Your task to perform on an android device: Open my contact list Image 0: 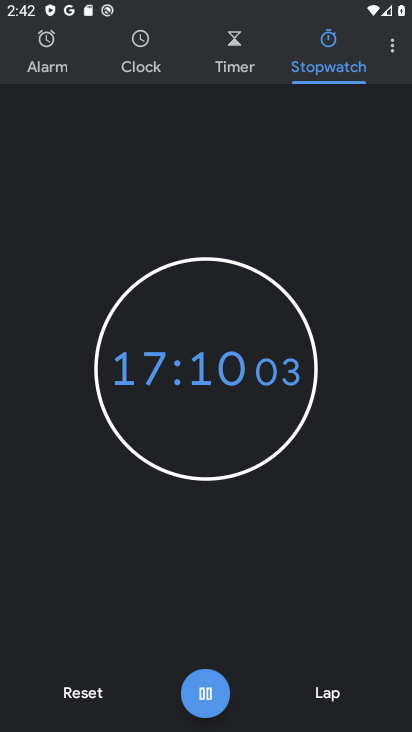
Step 0: press home button
Your task to perform on an android device: Open my contact list Image 1: 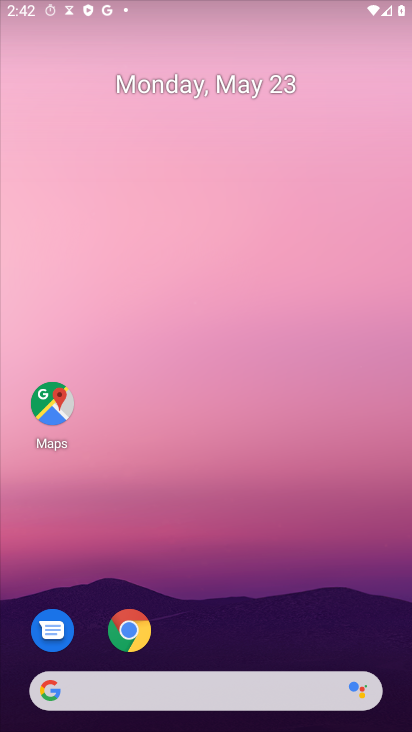
Step 1: drag from (306, 567) to (267, 5)
Your task to perform on an android device: Open my contact list Image 2: 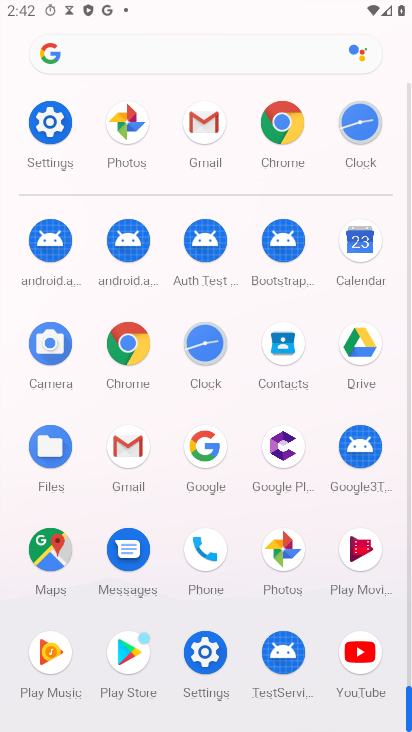
Step 2: click (191, 544)
Your task to perform on an android device: Open my contact list Image 3: 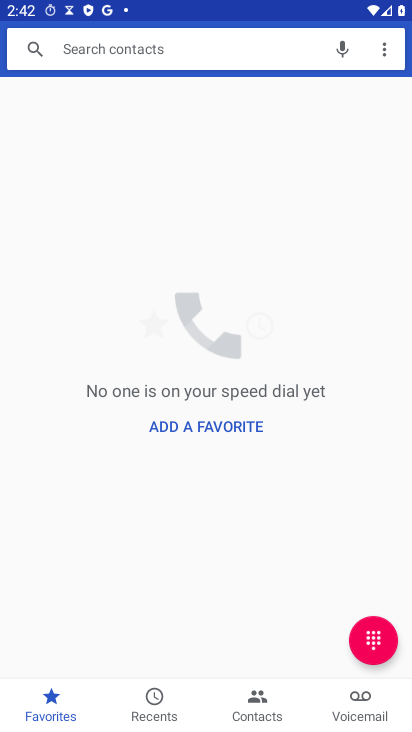
Step 3: click (246, 715)
Your task to perform on an android device: Open my contact list Image 4: 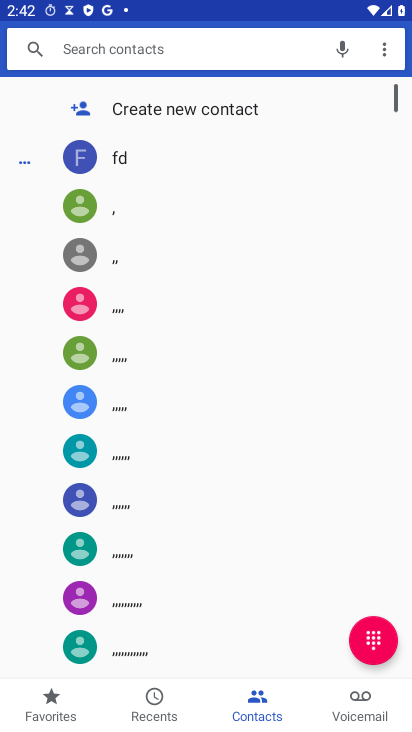
Step 4: task complete